Your task to perform on an android device: see tabs open on other devices in the chrome app Image 0: 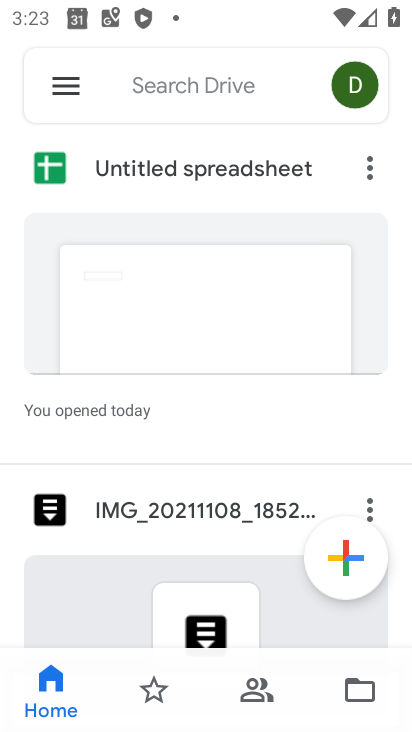
Step 0: press home button
Your task to perform on an android device: see tabs open on other devices in the chrome app Image 1: 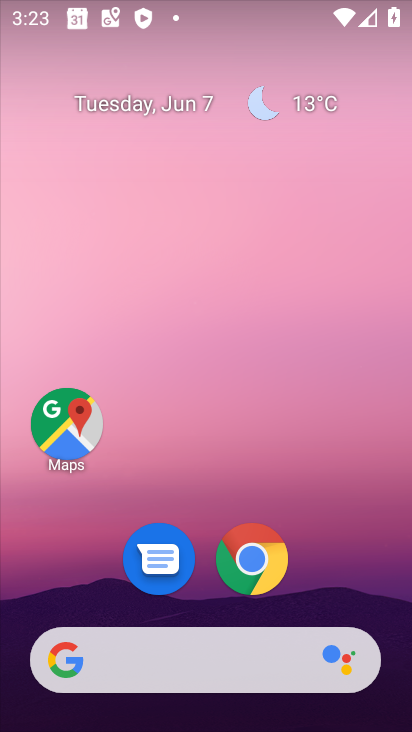
Step 1: drag from (323, 569) to (285, 216)
Your task to perform on an android device: see tabs open on other devices in the chrome app Image 2: 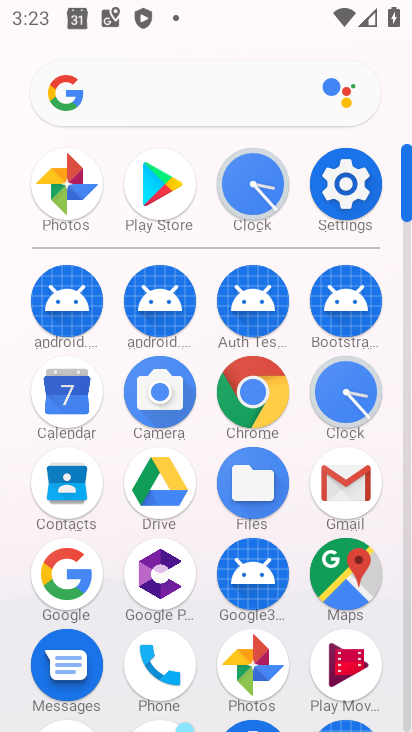
Step 2: click (253, 393)
Your task to perform on an android device: see tabs open on other devices in the chrome app Image 3: 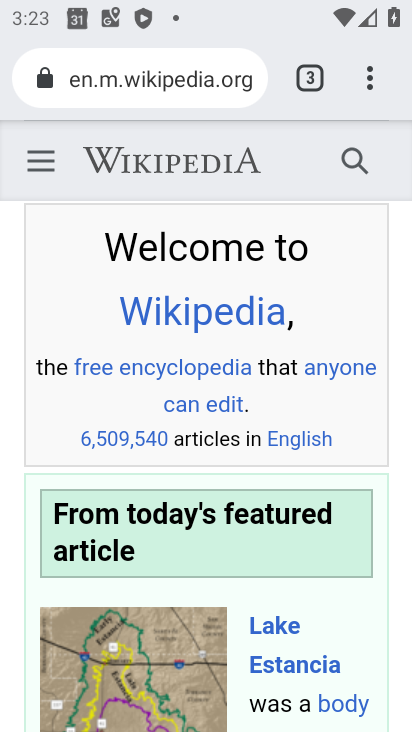
Step 3: click (369, 77)
Your task to perform on an android device: see tabs open on other devices in the chrome app Image 4: 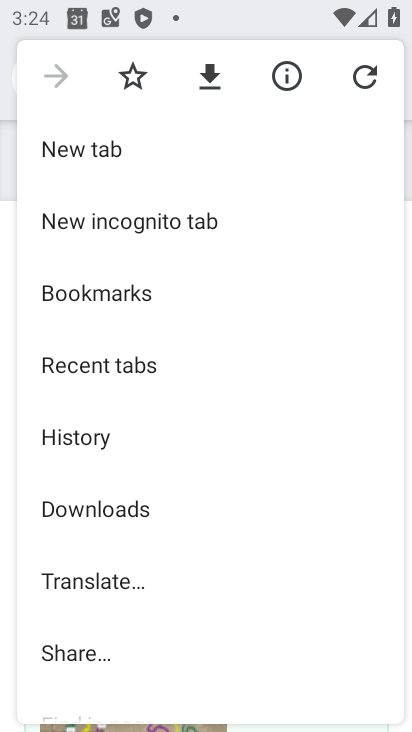
Step 4: drag from (155, 431) to (176, 327)
Your task to perform on an android device: see tabs open on other devices in the chrome app Image 5: 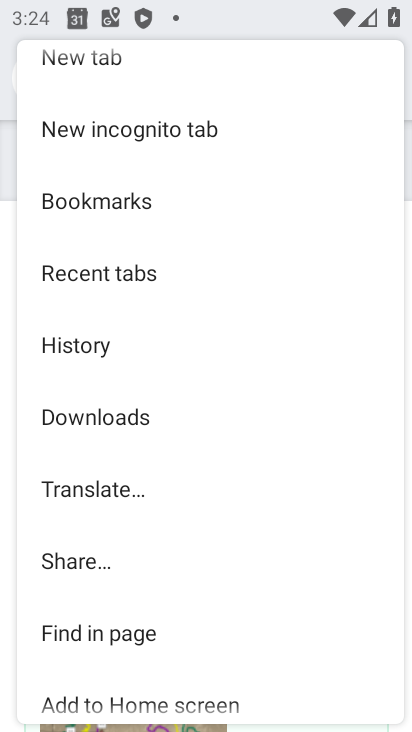
Step 5: click (126, 284)
Your task to perform on an android device: see tabs open on other devices in the chrome app Image 6: 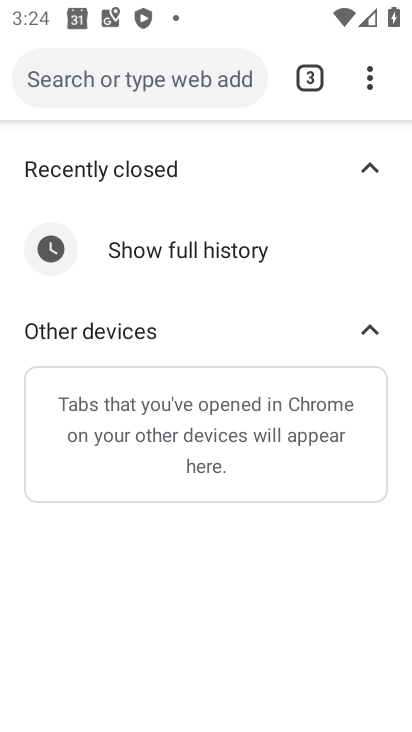
Step 6: task complete